Your task to perform on an android device: See recent photos Image 0: 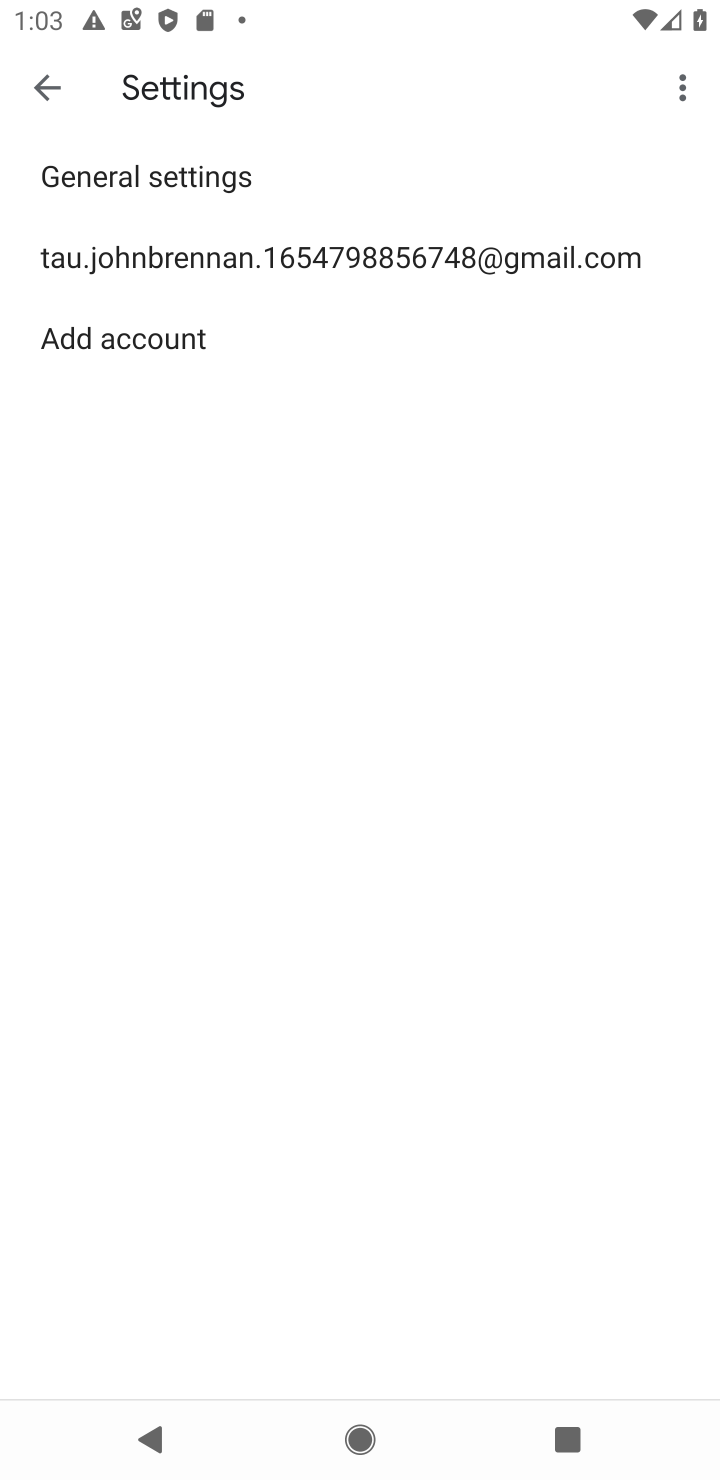
Step 0: press home button
Your task to perform on an android device: See recent photos Image 1: 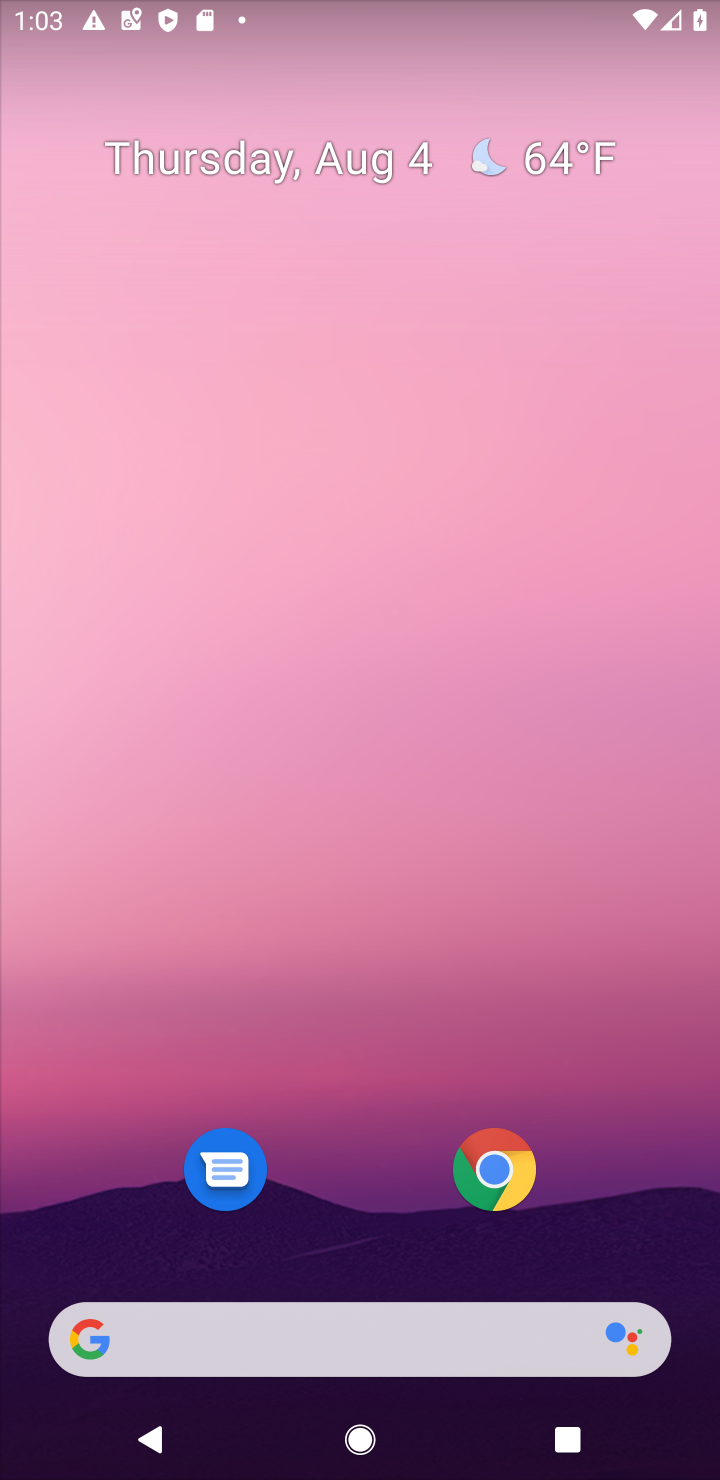
Step 1: drag from (358, 1227) to (432, 44)
Your task to perform on an android device: See recent photos Image 2: 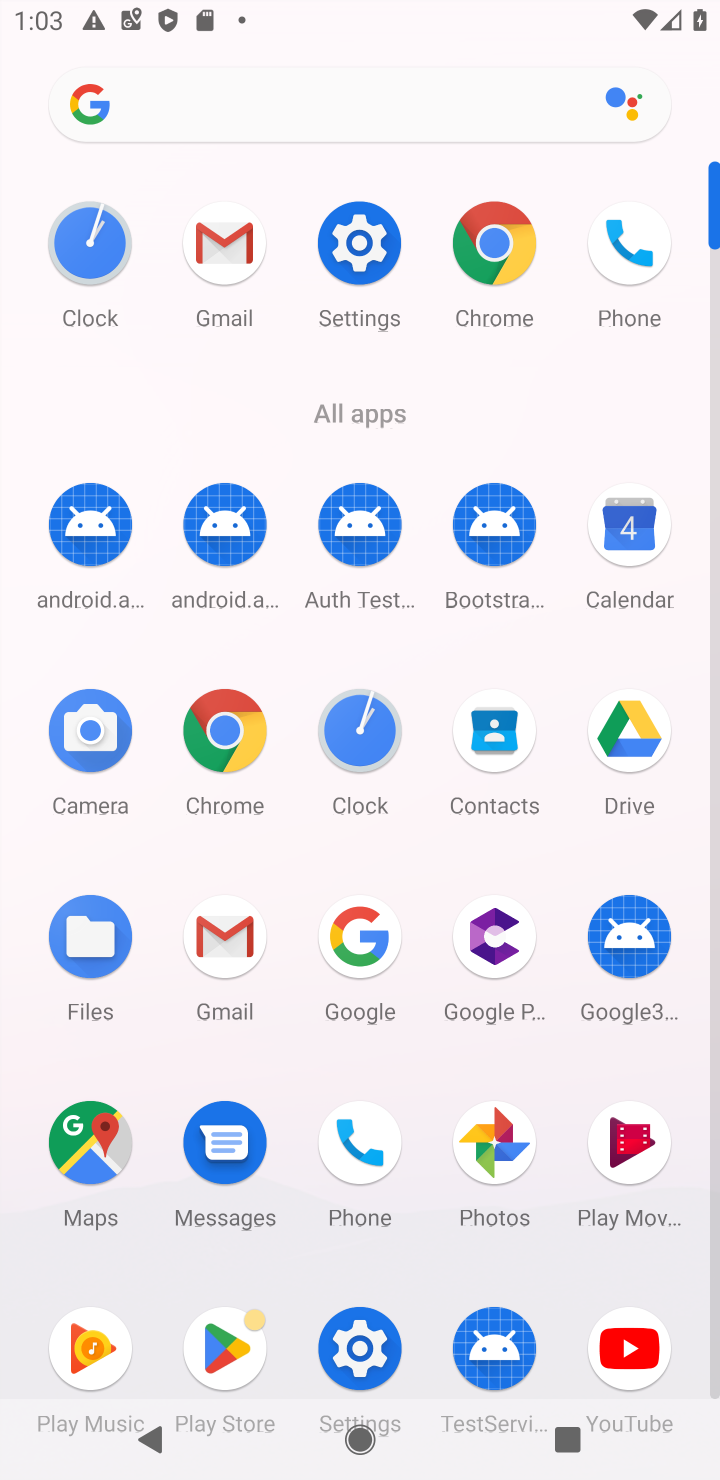
Step 2: click (501, 1183)
Your task to perform on an android device: See recent photos Image 3: 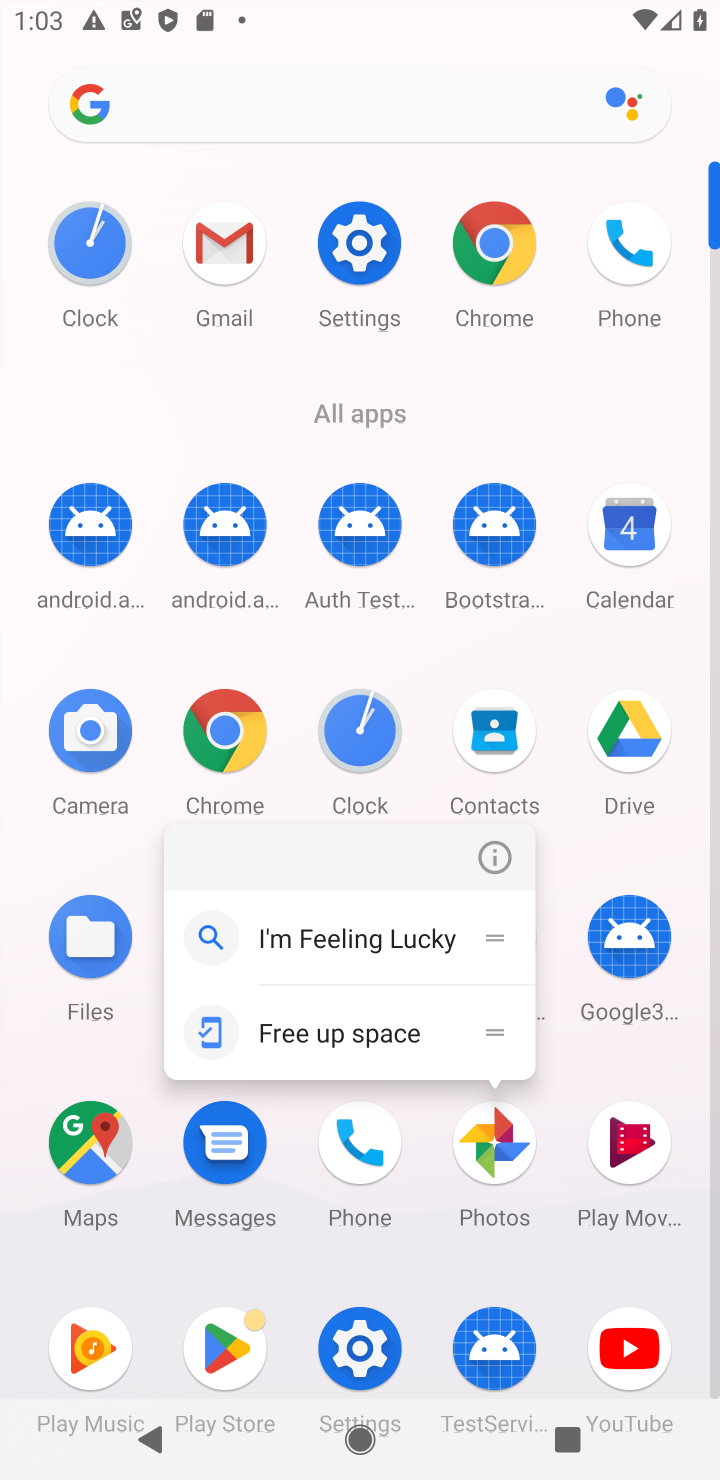
Step 3: click (482, 1181)
Your task to perform on an android device: See recent photos Image 4: 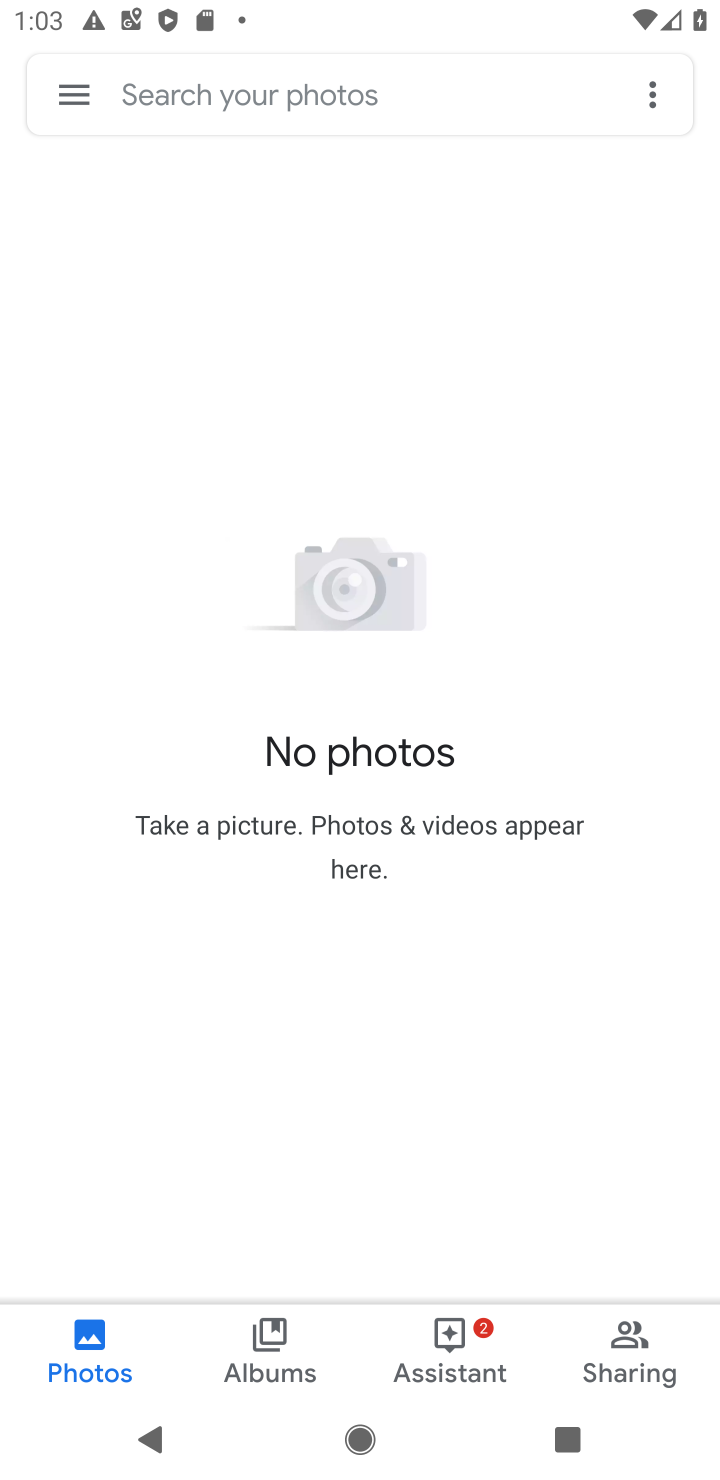
Step 4: task complete